Your task to perform on an android device: turn on sleep mode Image 0: 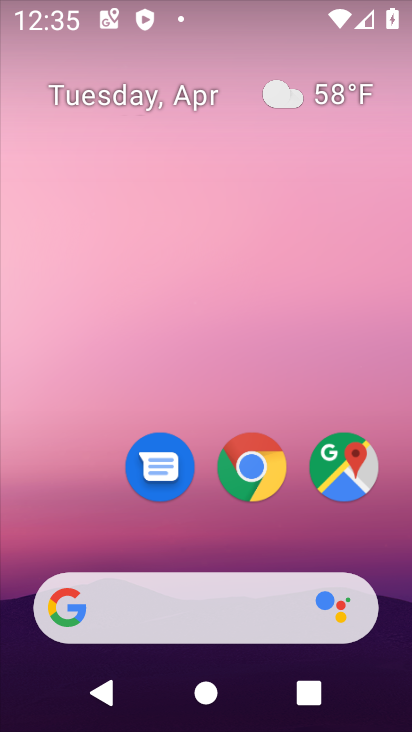
Step 0: drag from (249, 12) to (197, 707)
Your task to perform on an android device: turn on sleep mode Image 1: 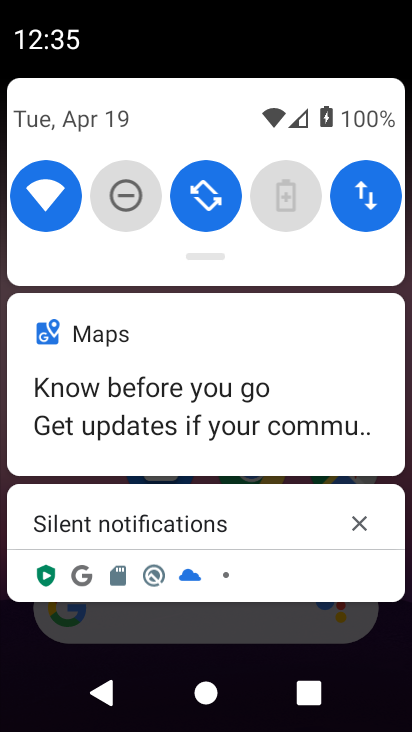
Step 1: drag from (228, 92) to (304, 680)
Your task to perform on an android device: turn on sleep mode Image 2: 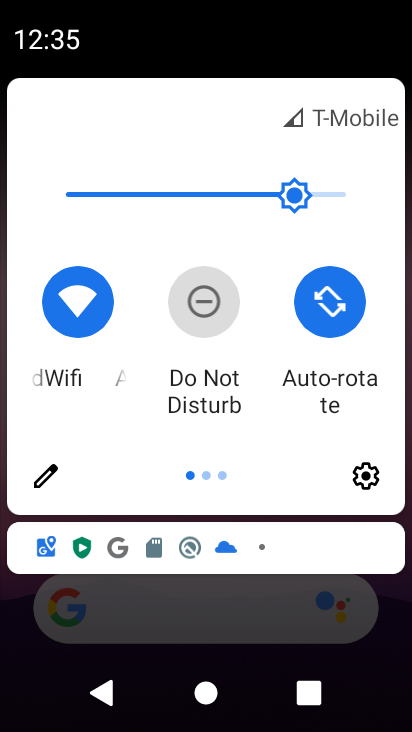
Step 2: click (361, 495)
Your task to perform on an android device: turn on sleep mode Image 3: 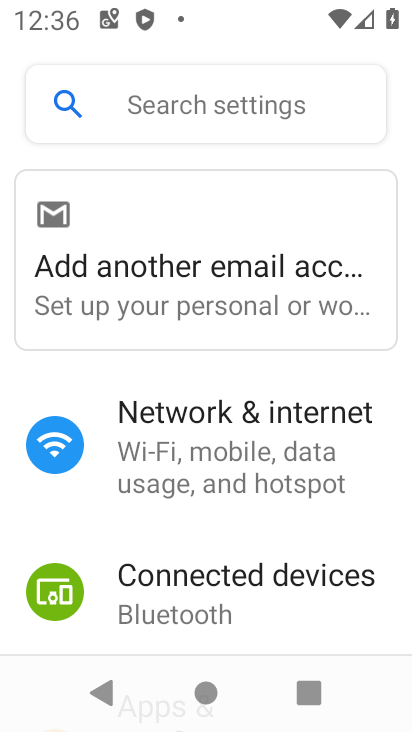
Step 3: drag from (194, 610) to (171, 119)
Your task to perform on an android device: turn on sleep mode Image 4: 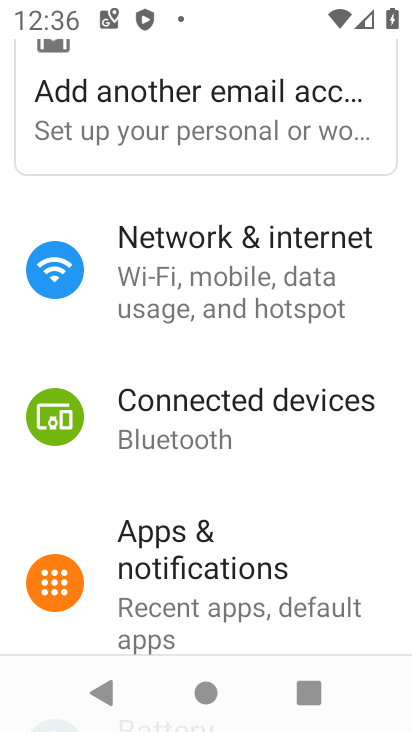
Step 4: drag from (222, 582) to (255, 569)
Your task to perform on an android device: turn on sleep mode Image 5: 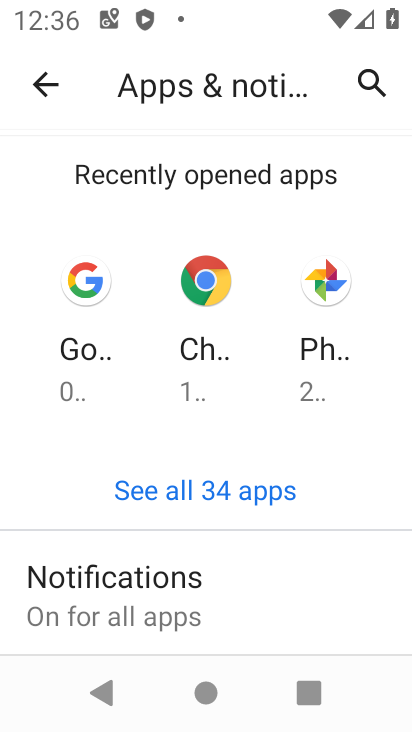
Step 5: click (67, 624)
Your task to perform on an android device: turn on sleep mode Image 6: 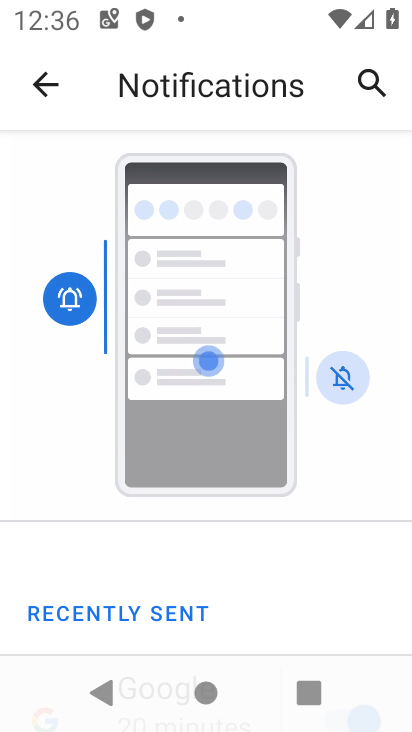
Step 6: task complete